Your task to perform on an android device: make emails show in primary in the gmail app Image 0: 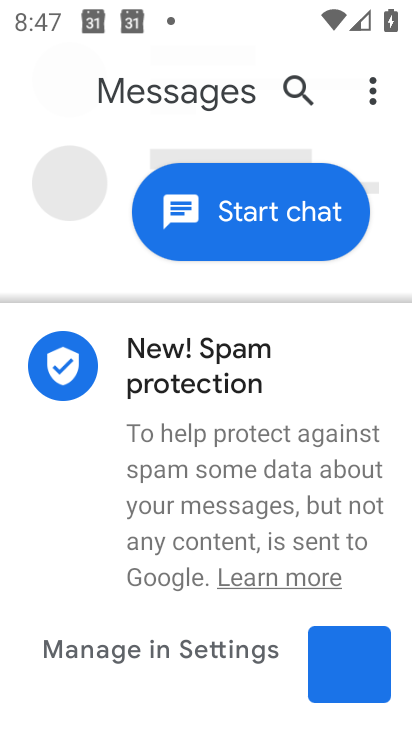
Step 0: press home button
Your task to perform on an android device: make emails show in primary in the gmail app Image 1: 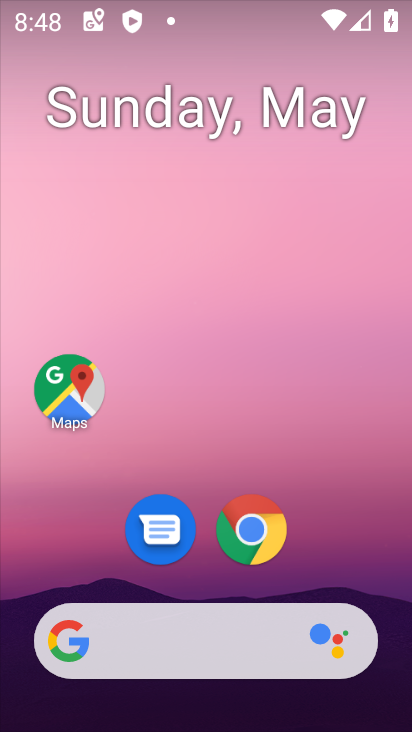
Step 1: drag from (375, 568) to (288, 205)
Your task to perform on an android device: make emails show in primary in the gmail app Image 2: 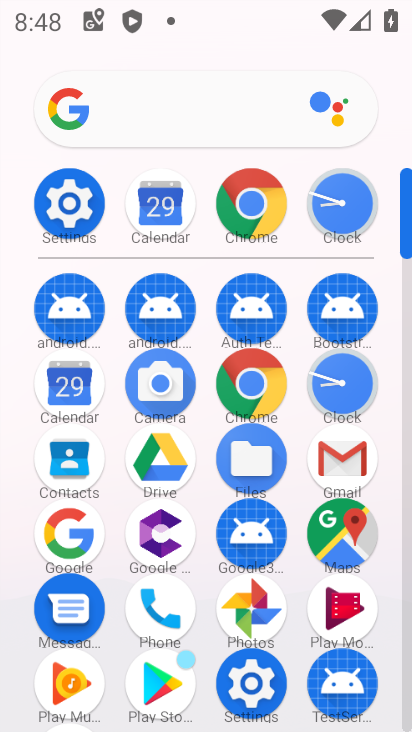
Step 2: click (364, 461)
Your task to perform on an android device: make emails show in primary in the gmail app Image 3: 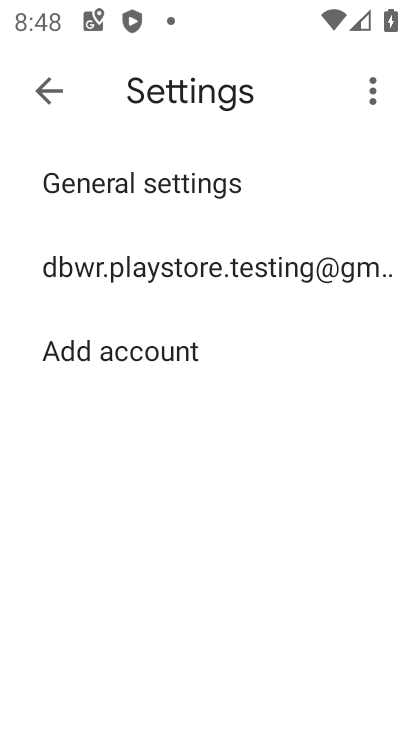
Step 3: press home button
Your task to perform on an android device: make emails show in primary in the gmail app Image 4: 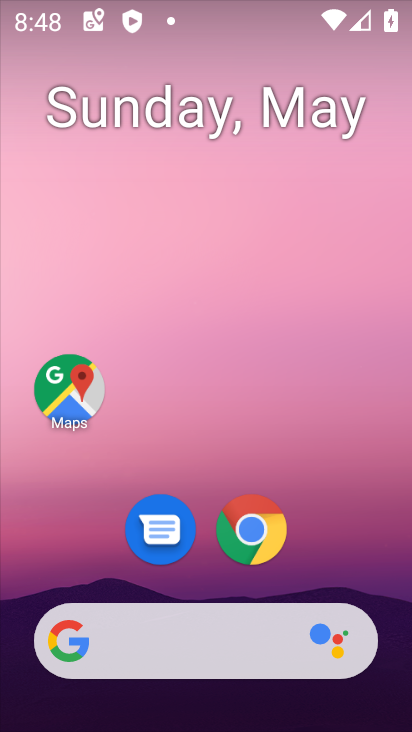
Step 4: drag from (366, 561) to (198, 97)
Your task to perform on an android device: make emails show in primary in the gmail app Image 5: 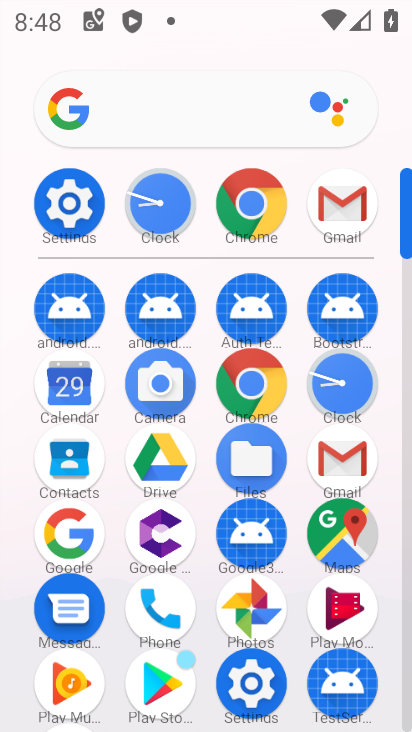
Step 5: click (340, 468)
Your task to perform on an android device: make emails show in primary in the gmail app Image 6: 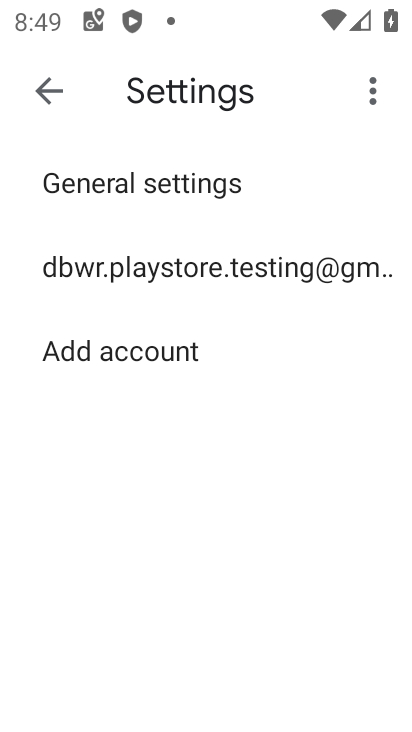
Step 6: click (39, 104)
Your task to perform on an android device: make emails show in primary in the gmail app Image 7: 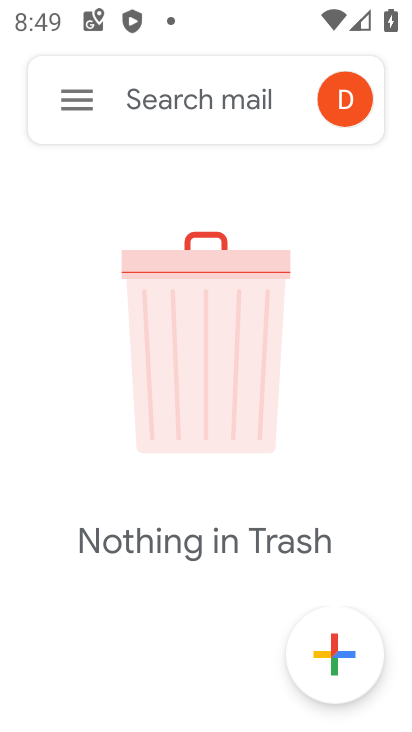
Step 7: click (66, 100)
Your task to perform on an android device: make emails show in primary in the gmail app Image 8: 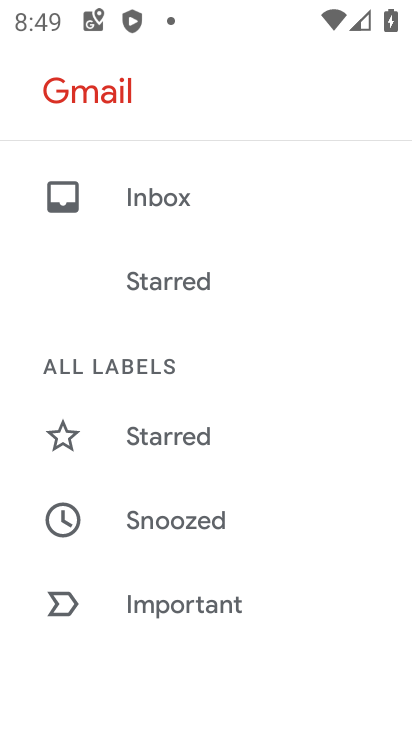
Step 8: click (222, 172)
Your task to perform on an android device: make emails show in primary in the gmail app Image 9: 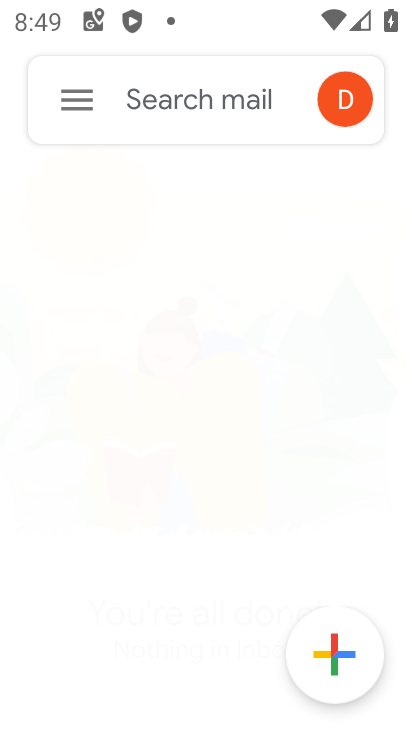
Step 9: task complete